Your task to perform on an android device: Open the calendar and show me this week's events Image 0: 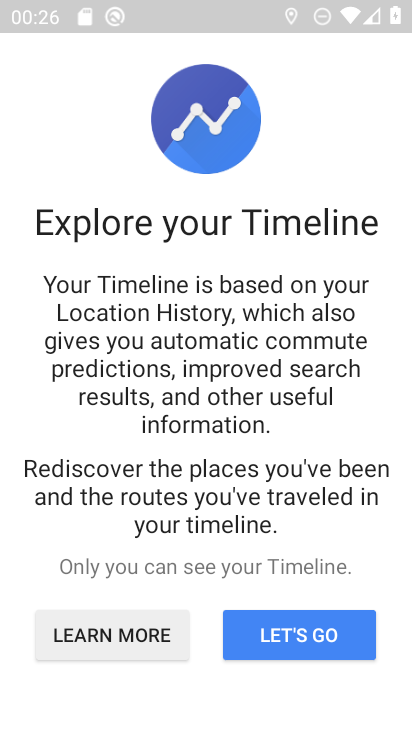
Step 0: press home button
Your task to perform on an android device: Open the calendar and show me this week's events Image 1: 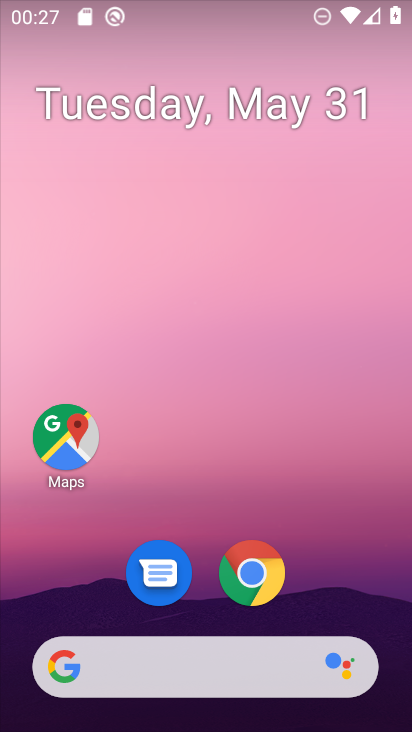
Step 1: drag from (208, 575) to (188, 43)
Your task to perform on an android device: Open the calendar and show me this week's events Image 2: 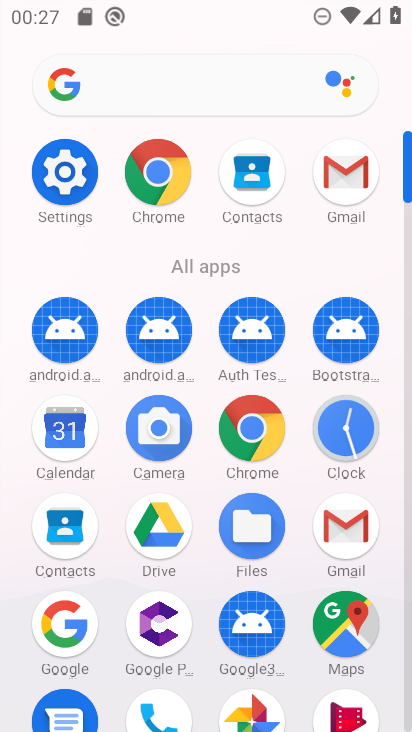
Step 2: click (87, 425)
Your task to perform on an android device: Open the calendar and show me this week's events Image 3: 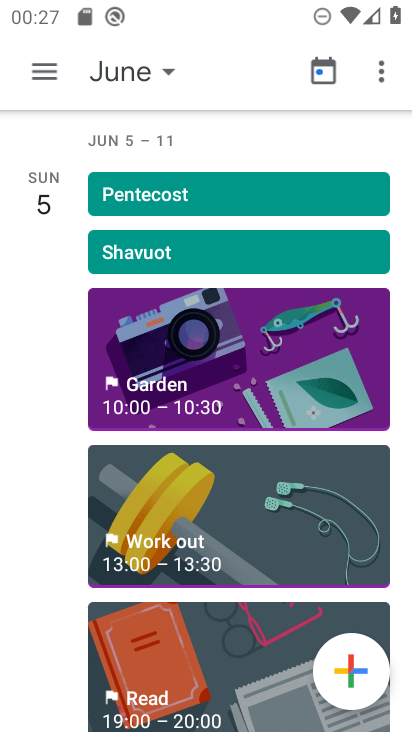
Step 3: click (119, 76)
Your task to perform on an android device: Open the calendar and show me this week's events Image 4: 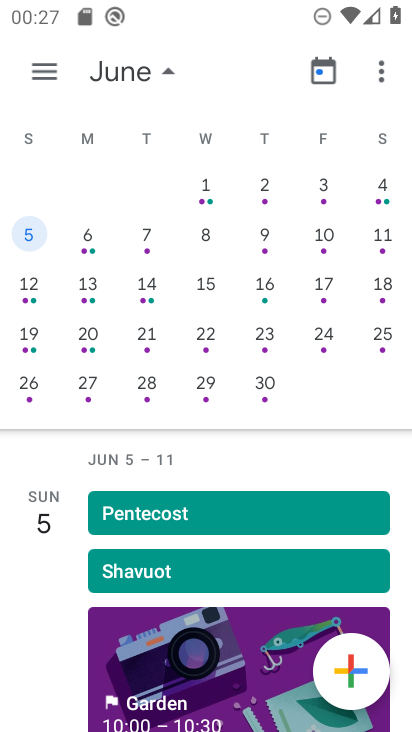
Step 4: click (207, 188)
Your task to perform on an android device: Open the calendar and show me this week's events Image 5: 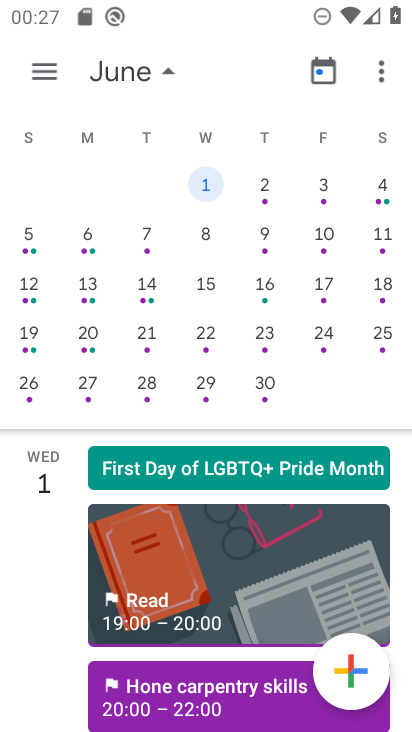
Step 5: task complete